Your task to perform on an android device: Search for vegetarian restaurants on Maps Image 0: 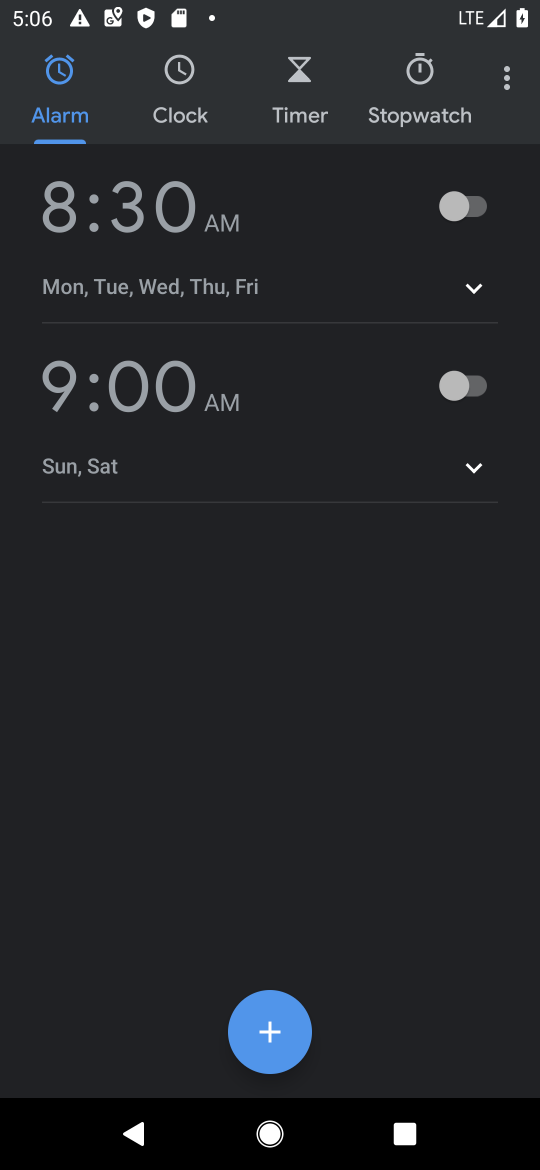
Step 0: press home button
Your task to perform on an android device: Search for vegetarian restaurants on Maps Image 1: 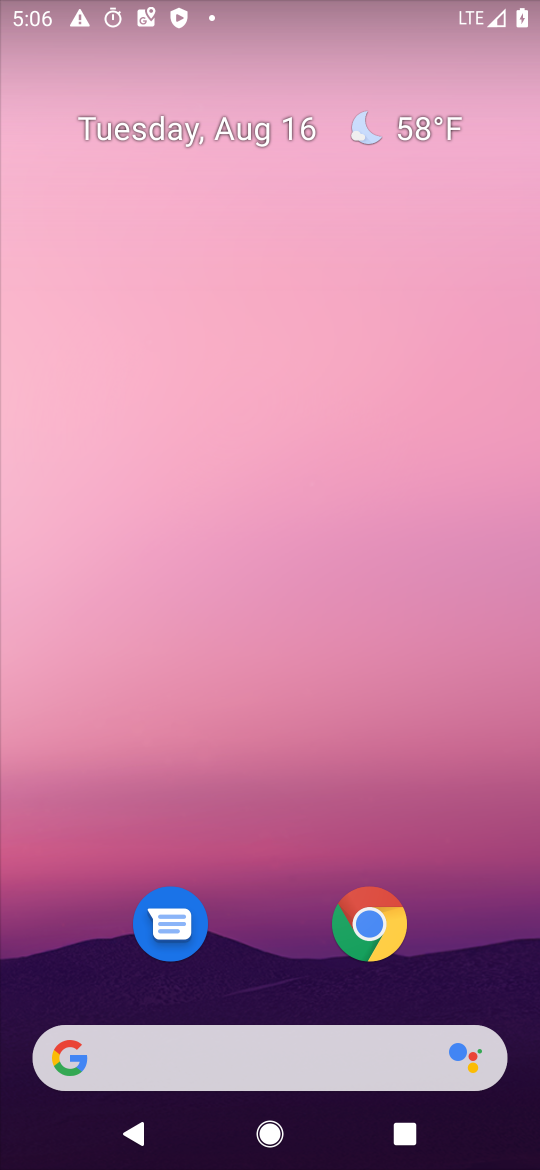
Step 1: drag from (266, 939) to (230, 11)
Your task to perform on an android device: Search for vegetarian restaurants on Maps Image 2: 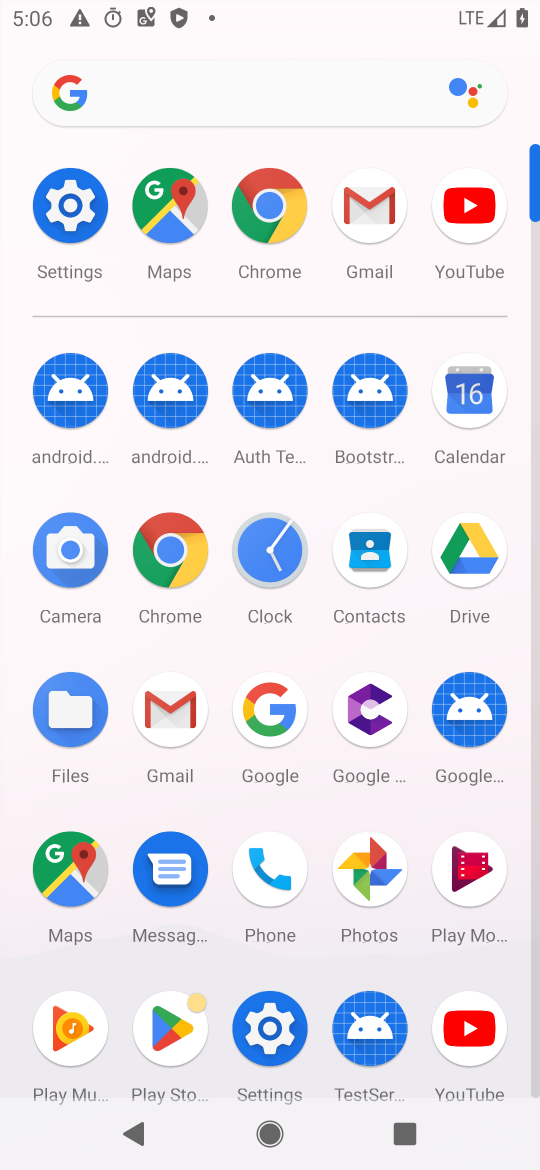
Step 2: click (167, 242)
Your task to perform on an android device: Search for vegetarian restaurants on Maps Image 3: 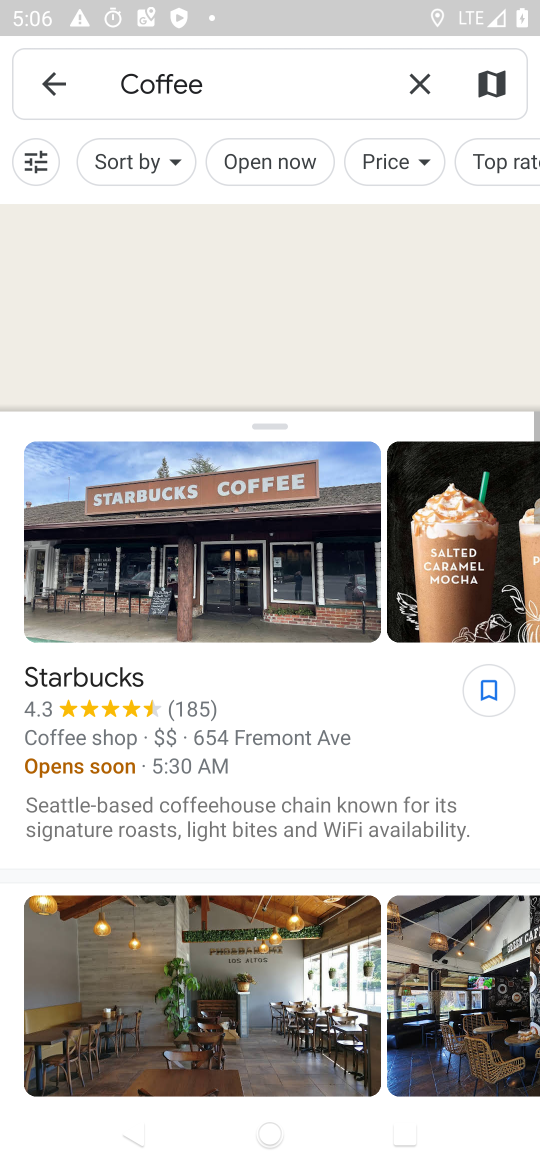
Step 3: click (416, 84)
Your task to perform on an android device: Search for vegetarian restaurants on Maps Image 4: 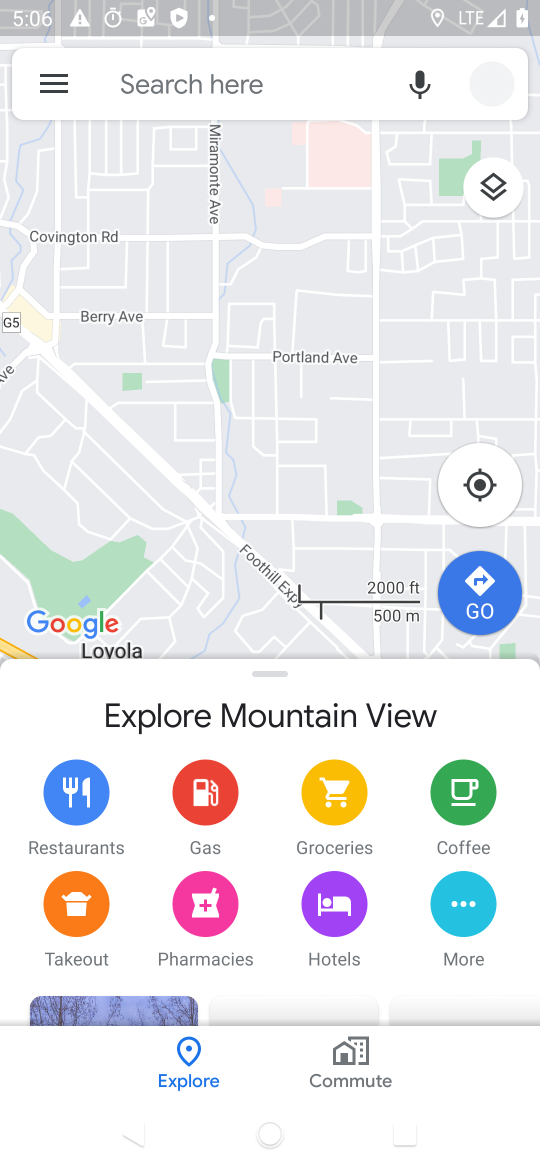
Step 4: click (248, 89)
Your task to perform on an android device: Search for vegetarian restaurants on Maps Image 5: 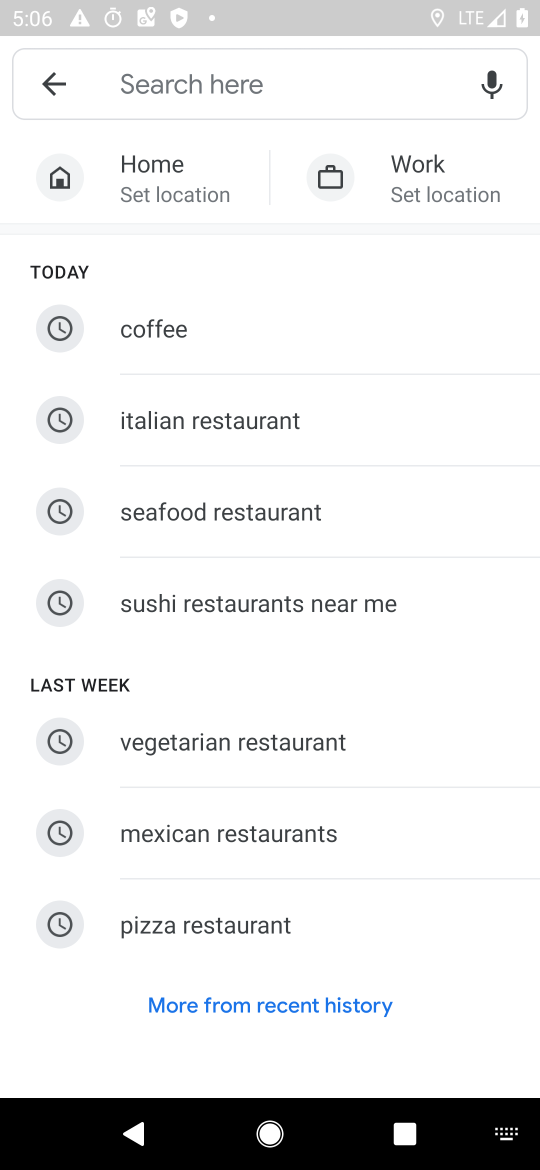
Step 5: click (240, 745)
Your task to perform on an android device: Search for vegetarian restaurants on Maps Image 6: 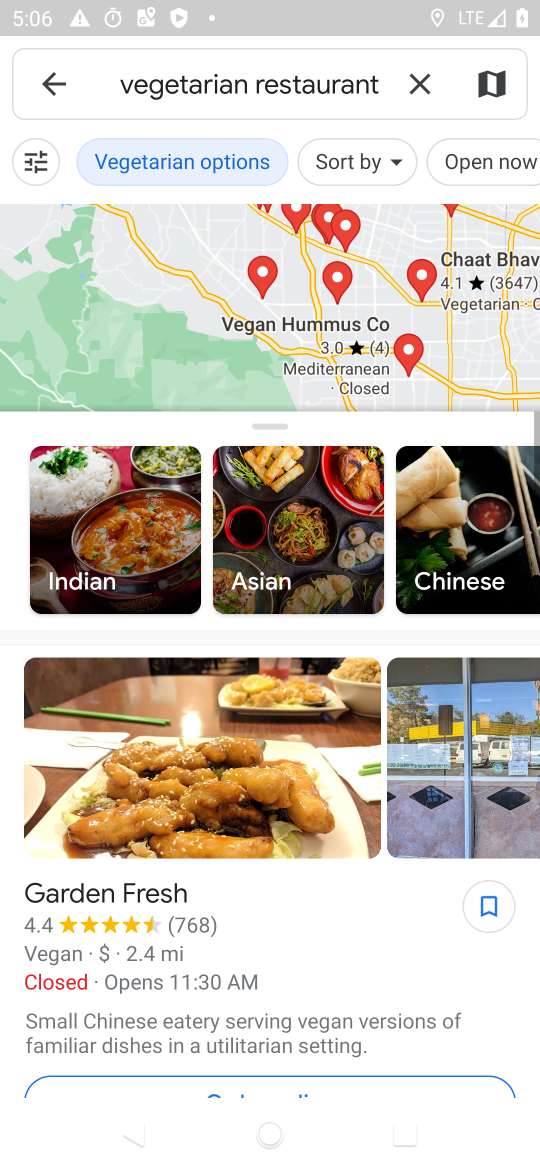
Step 6: task complete